Your task to perform on an android device: empty trash in google photos Image 0: 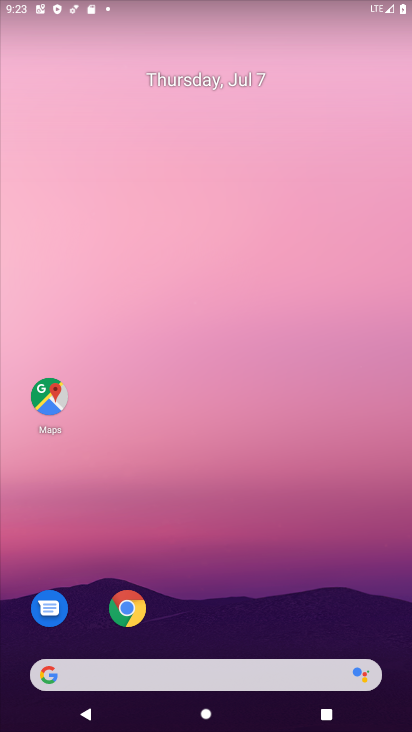
Step 0: drag from (210, 613) to (217, 20)
Your task to perform on an android device: empty trash in google photos Image 1: 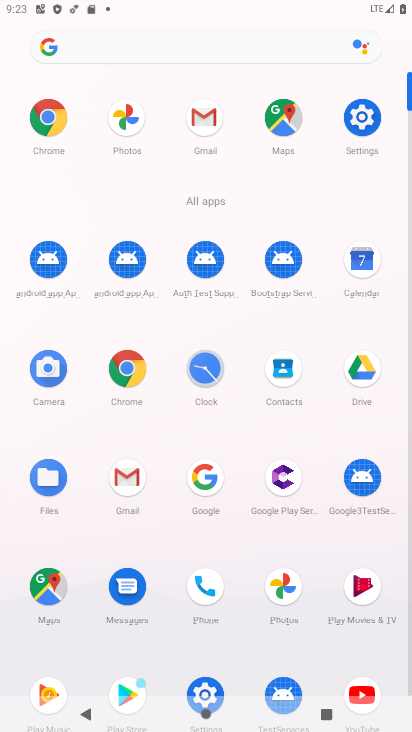
Step 1: click (284, 582)
Your task to perform on an android device: empty trash in google photos Image 2: 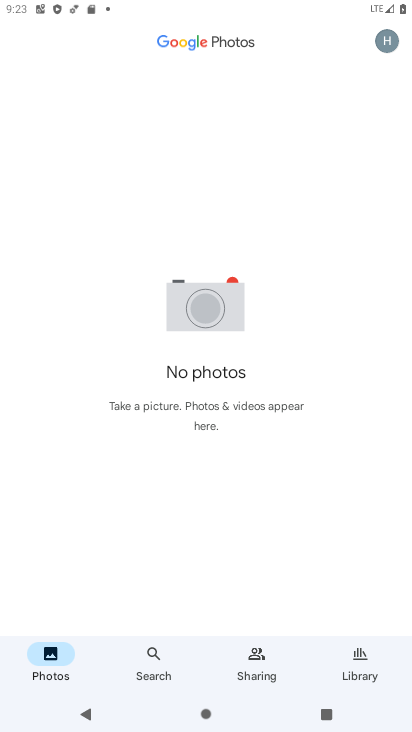
Step 2: click (387, 38)
Your task to perform on an android device: empty trash in google photos Image 3: 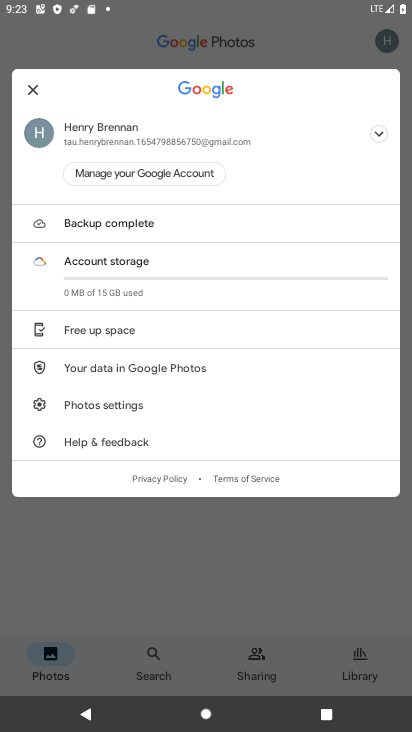
Step 3: click (220, 563)
Your task to perform on an android device: empty trash in google photos Image 4: 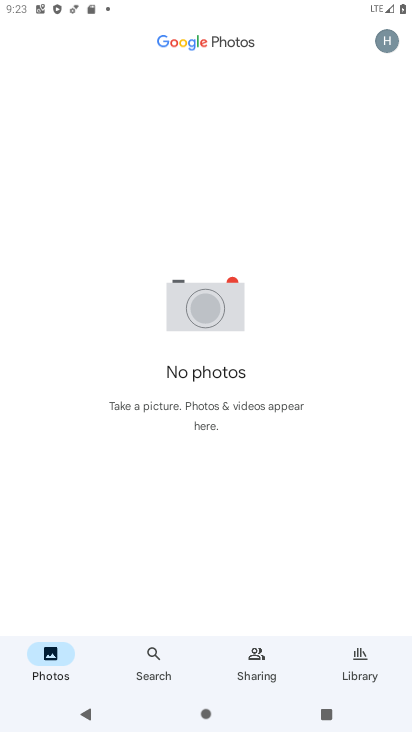
Step 4: click (364, 670)
Your task to perform on an android device: empty trash in google photos Image 5: 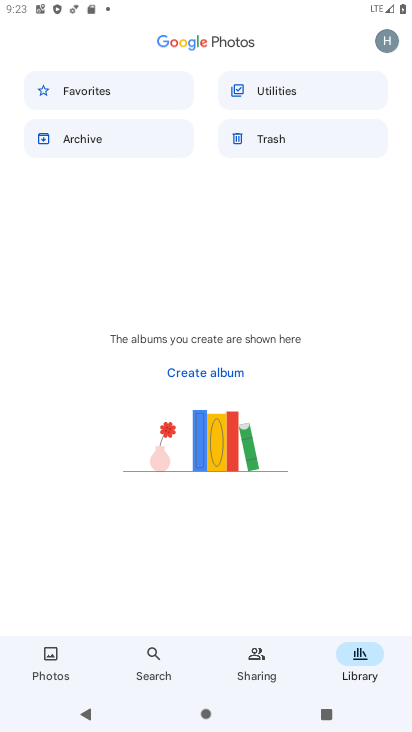
Step 5: click (267, 140)
Your task to perform on an android device: empty trash in google photos Image 6: 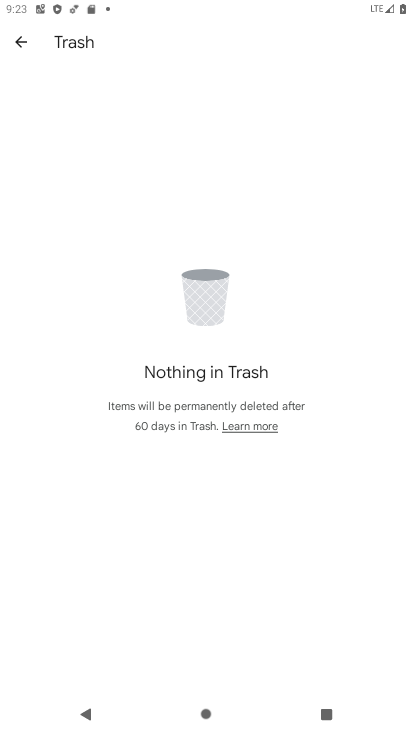
Step 6: task complete